Your task to perform on an android device: see creations saved in the google photos Image 0: 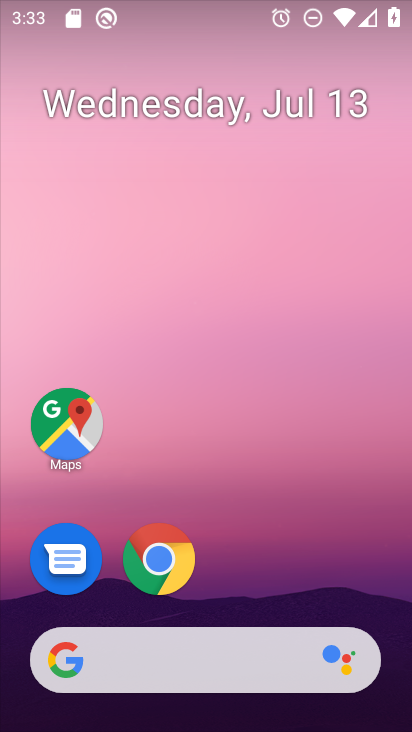
Step 0: drag from (359, 579) to (372, 154)
Your task to perform on an android device: see creations saved in the google photos Image 1: 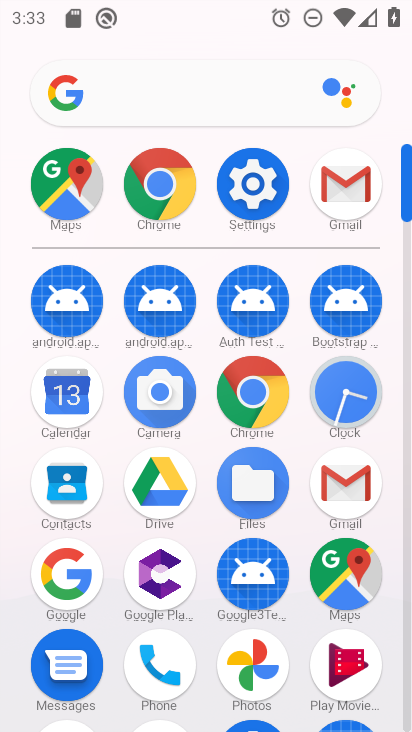
Step 1: click (257, 660)
Your task to perform on an android device: see creations saved in the google photos Image 2: 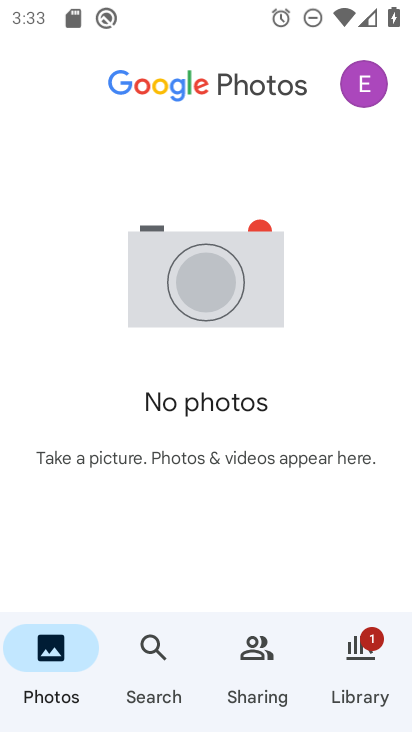
Step 2: click (149, 668)
Your task to perform on an android device: see creations saved in the google photos Image 3: 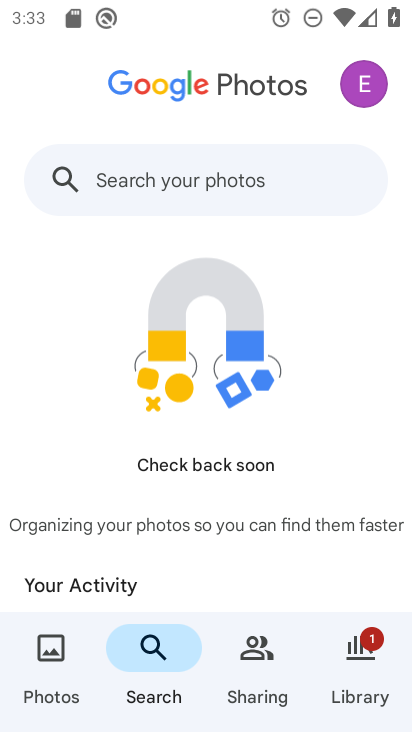
Step 3: click (154, 174)
Your task to perform on an android device: see creations saved in the google photos Image 4: 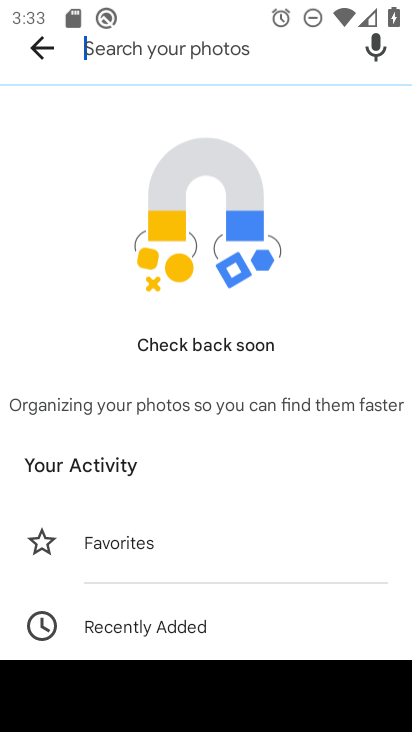
Step 4: drag from (239, 491) to (240, 282)
Your task to perform on an android device: see creations saved in the google photos Image 5: 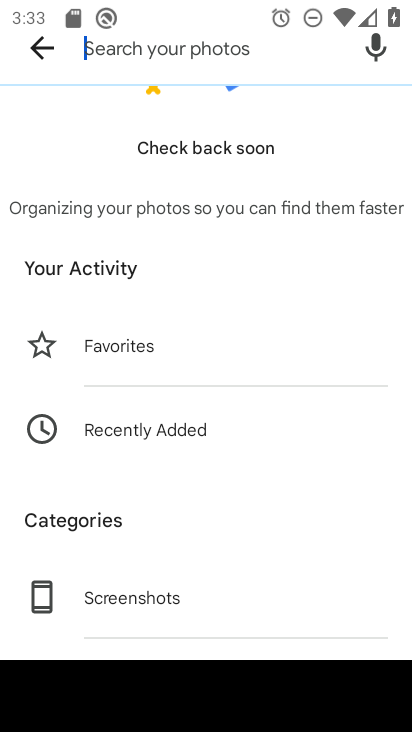
Step 5: drag from (208, 510) to (218, 332)
Your task to perform on an android device: see creations saved in the google photos Image 6: 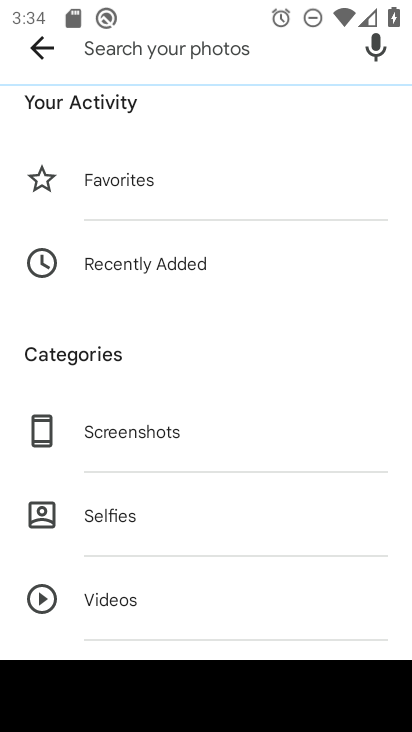
Step 6: drag from (203, 525) to (204, 327)
Your task to perform on an android device: see creations saved in the google photos Image 7: 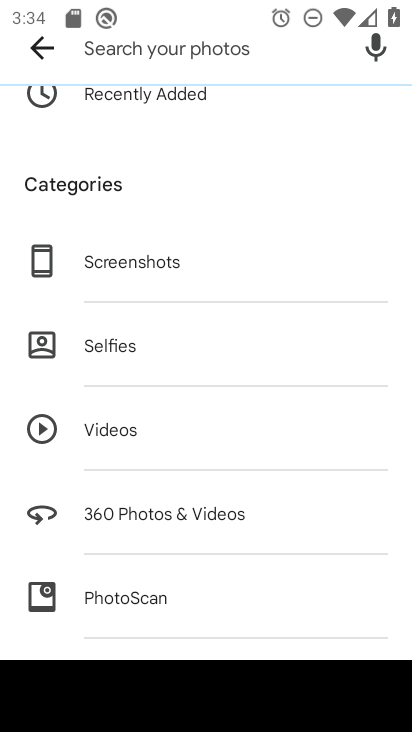
Step 7: drag from (235, 572) to (237, 384)
Your task to perform on an android device: see creations saved in the google photos Image 8: 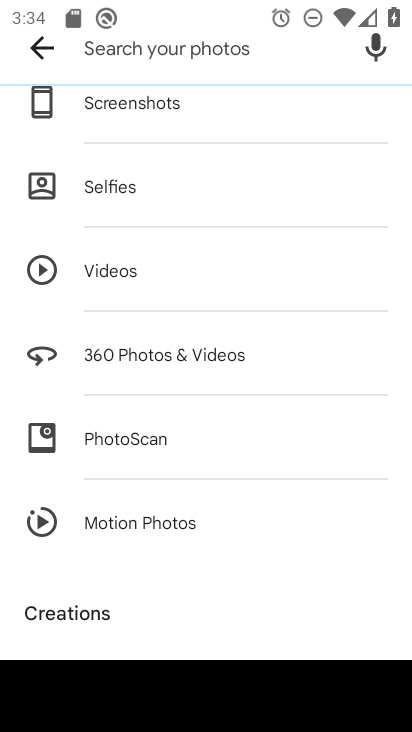
Step 8: drag from (227, 584) to (248, 342)
Your task to perform on an android device: see creations saved in the google photos Image 9: 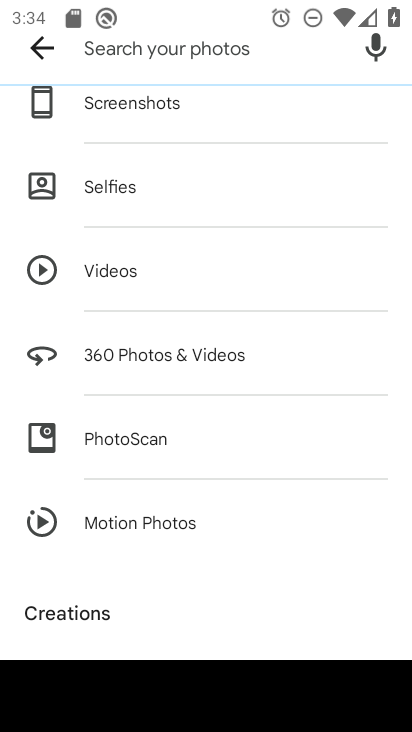
Step 9: click (92, 607)
Your task to perform on an android device: see creations saved in the google photos Image 10: 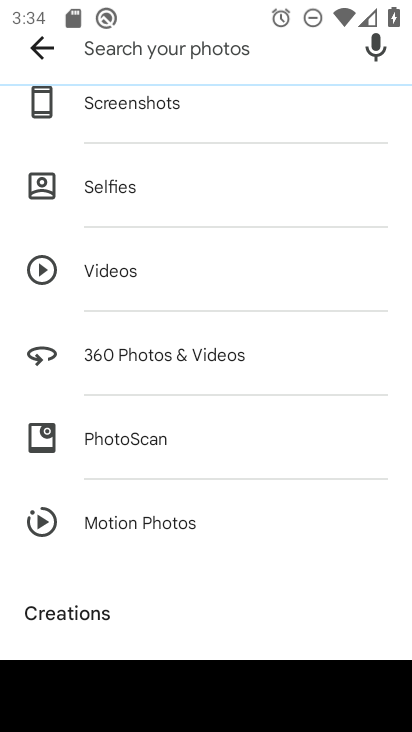
Step 10: task complete